Your task to perform on an android device: snooze an email in the gmail app Image 0: 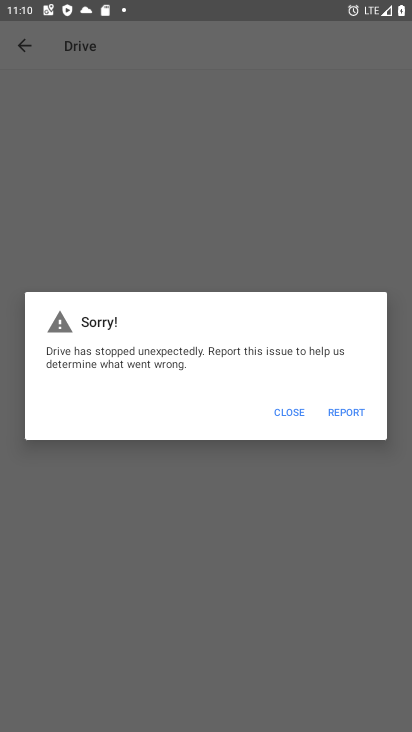
Step 0: press home button
Your task to perform on an android device: snooze an email in the gmail app Image 1: 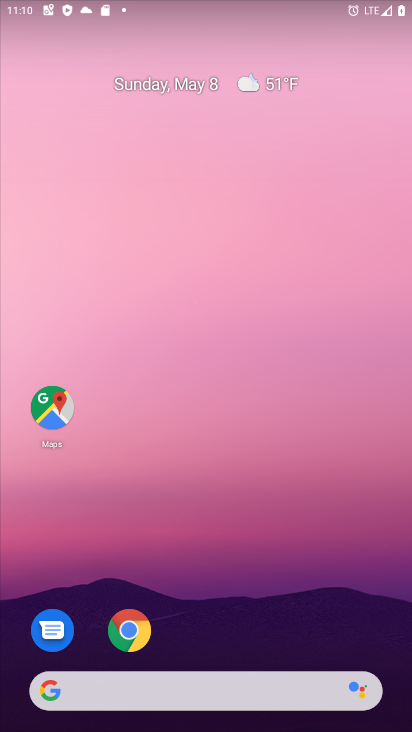
Step 1: drag from (358, 632) to (253, 65)
Your task to perform on an android device: snooze an email in the gmail app Image 2: 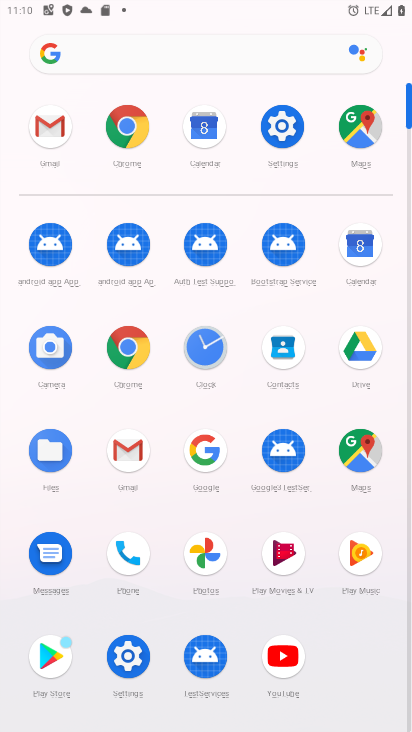
Step 2: click (119, 464)
Your task to perform on an android device: snooze an email in the gmail app Image 3: 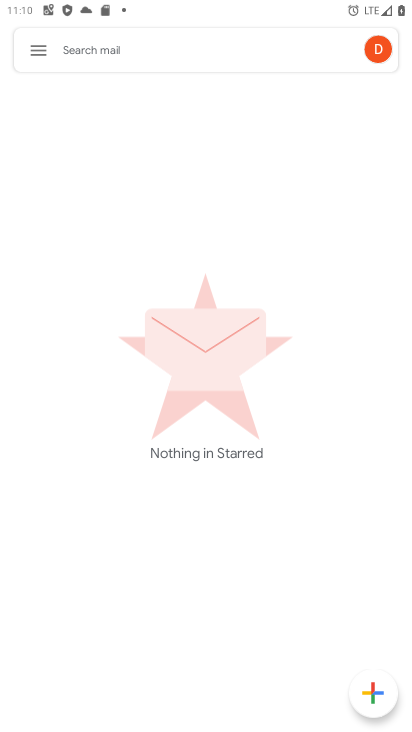
Step 3: click (41, 39)
Your task to perform on an android device: snooze an email in the gmail app Image 4: 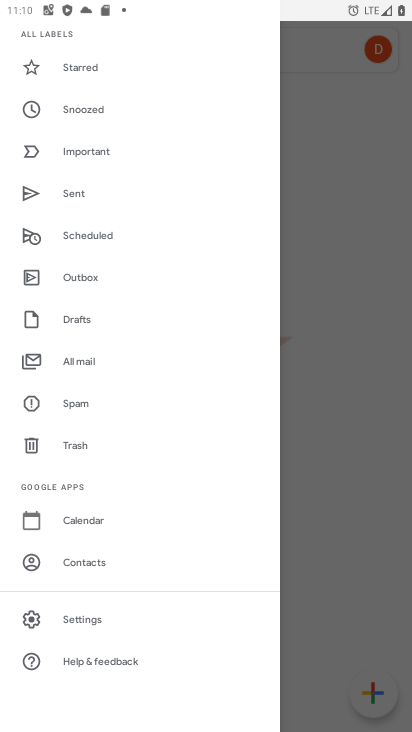
Step 4: click (124, 112)
Your task to perform on an android device: snooze an email in the gmail app Image 5: 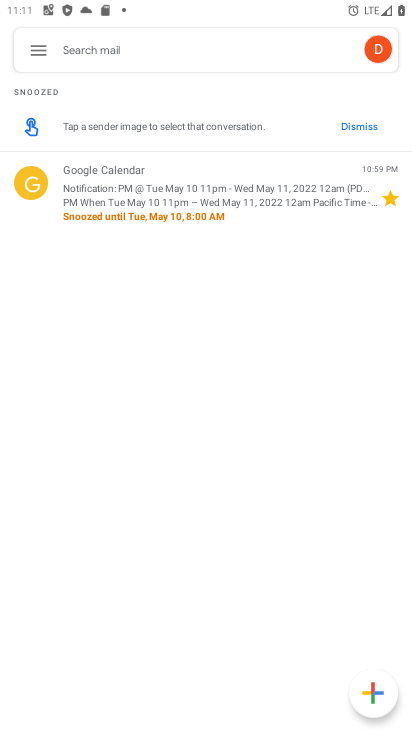
Step 5: task complete